Your task to perform on an android device: read, delete, or share a saved page in the chrome app Image 0: 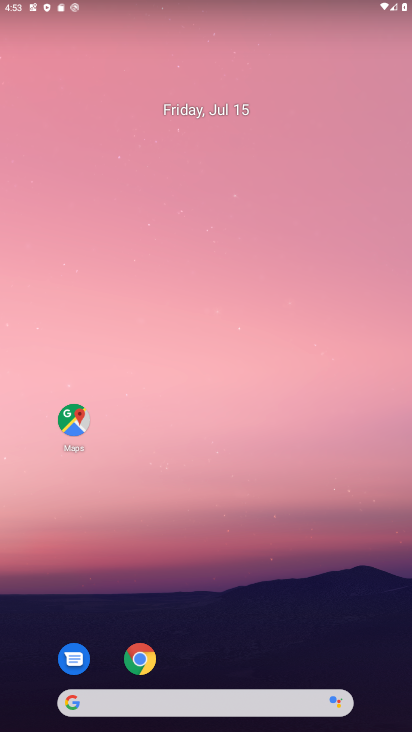
Step 0: drag from (226, 604) to (178, 153)
Your task to perform on an android device: read, delete, or share a saved page in the chrome app Image 1: 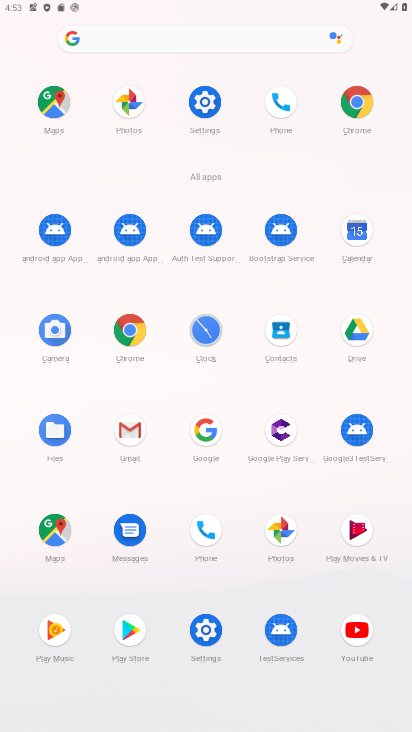
Step 1: click (368, 112)
Your task to perform on an android device: read, delete, or share a saved page in the chrome app Image 2: 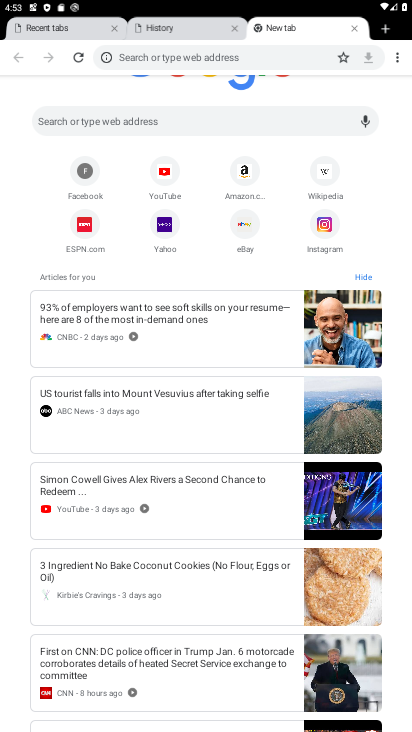
Step 2: drag from (395, 55) to (275, 206)
Your task to perform on an android device: read, delete, or share a saved page in the chrome app Image 3: 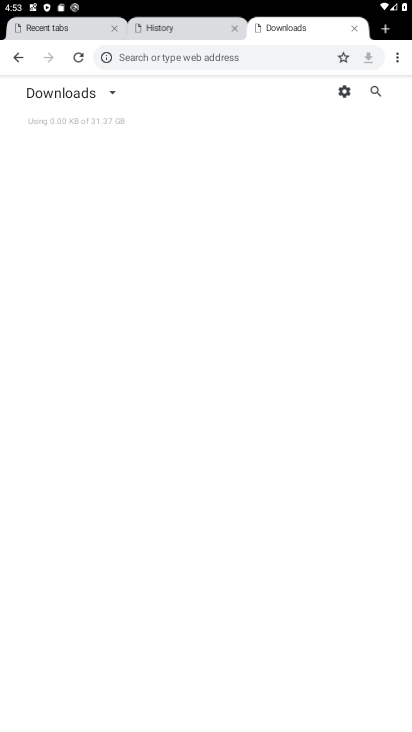
Step 3: click (105, 93)
Your task to perform on an android device: read, delete, or share a saved page in the chrome app Image 4: 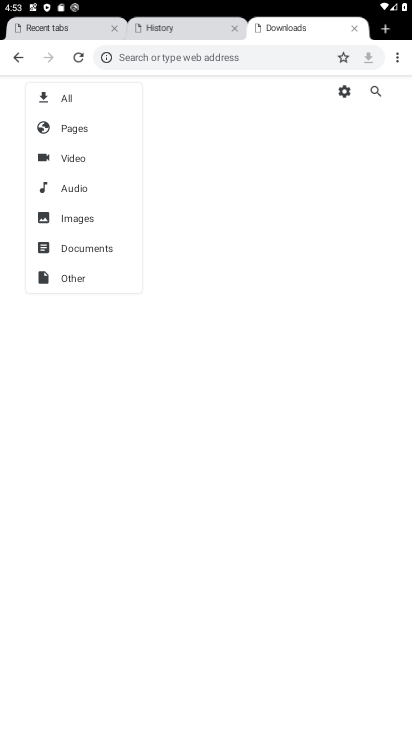
Step 4: click (65, 135)
Your task to perform on an android device: read, delete, or share a saved page in the chrome app Image 5: 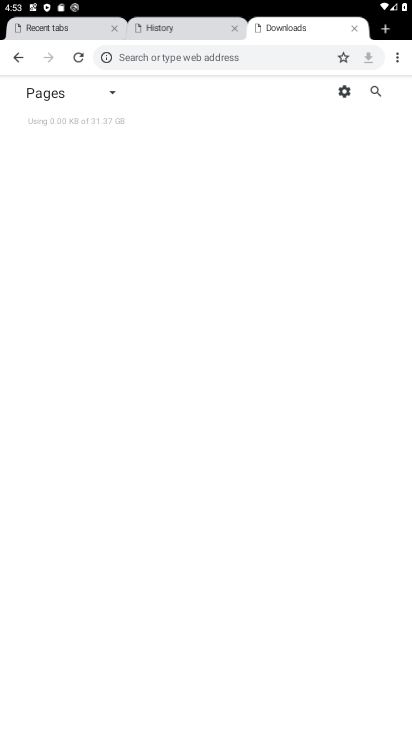
Step 5: task complete